Your task to perform on an android device: Open display settings Image 0: 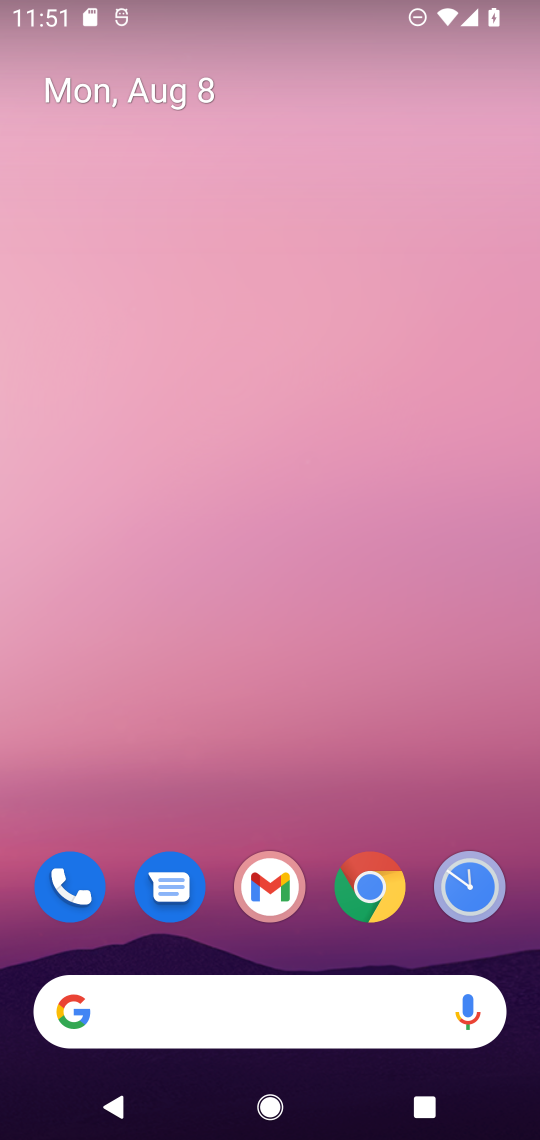
Step 0: drag from (338, 730) to (274, 200)
Your task to perform on an android device: Open display settings Image 1: 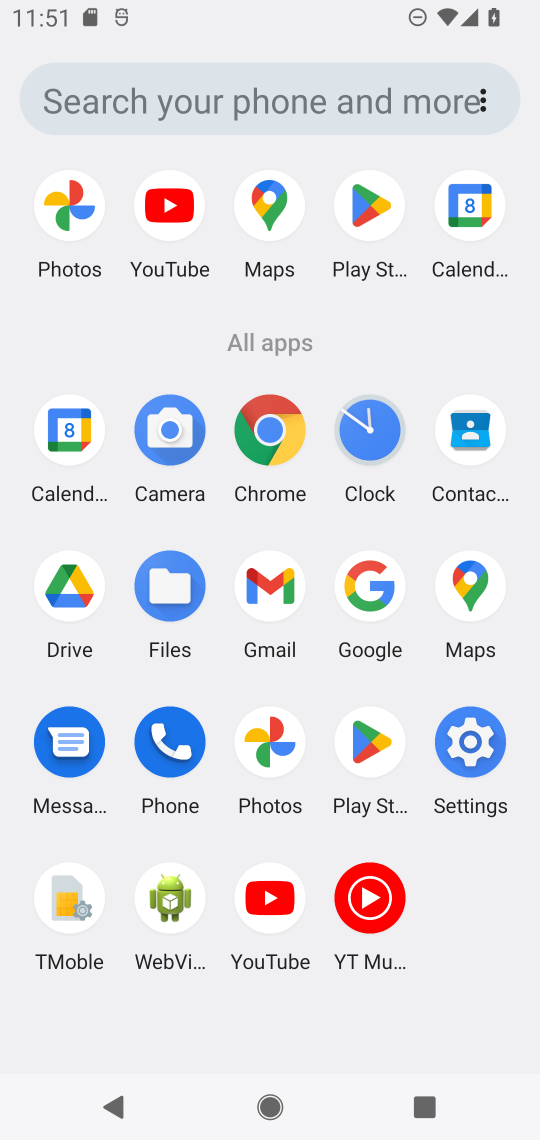
Step 1: click (472, 738)
Your task to perform on an android device: Open display settings Image 2: 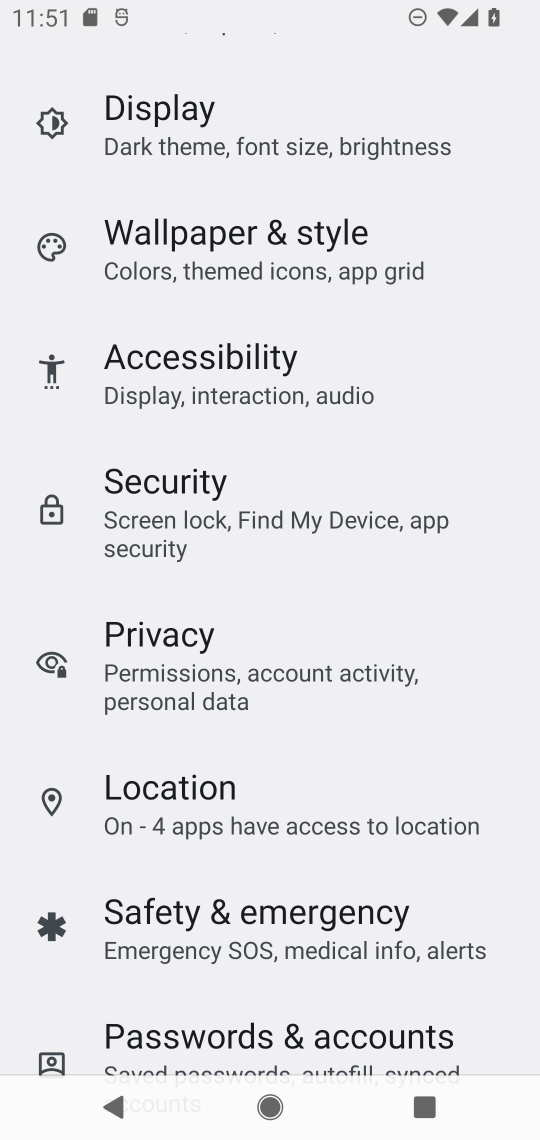
Step 2: click (178, 105)
Your task to perform on an android device: Open display settings Image 3: 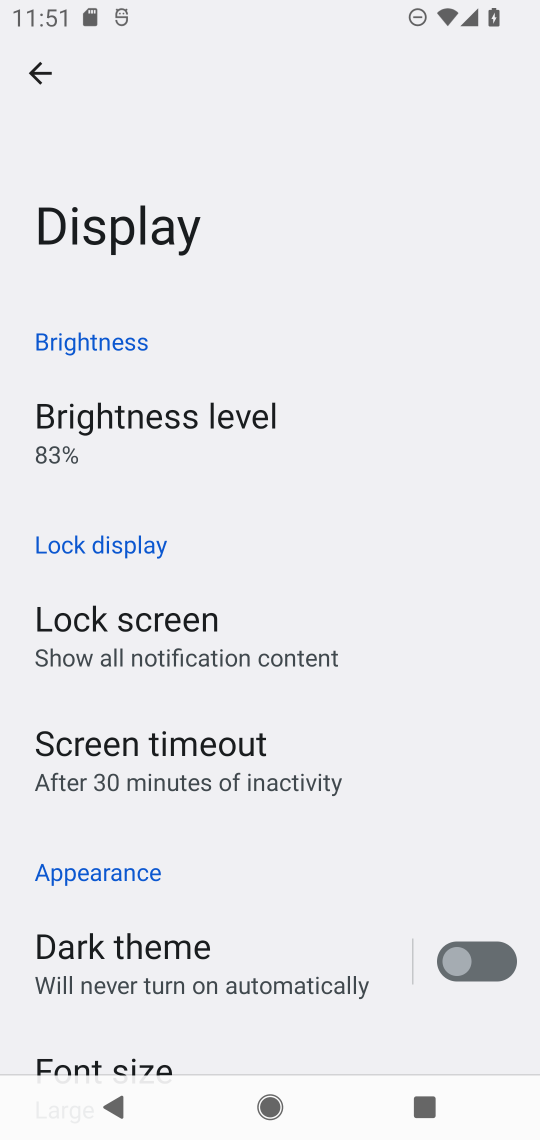
Step 3: task complete